Your task to perform on an android device: turn smart compose on in the gmail app Image 0: 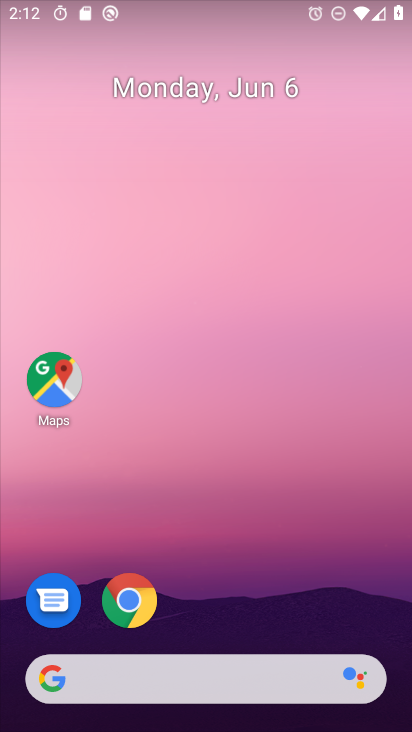
Step 0: drag from (213, 622) to (213, 212)
Your task to perform on an android device: turn smart compose on in the gmail app Image 1: 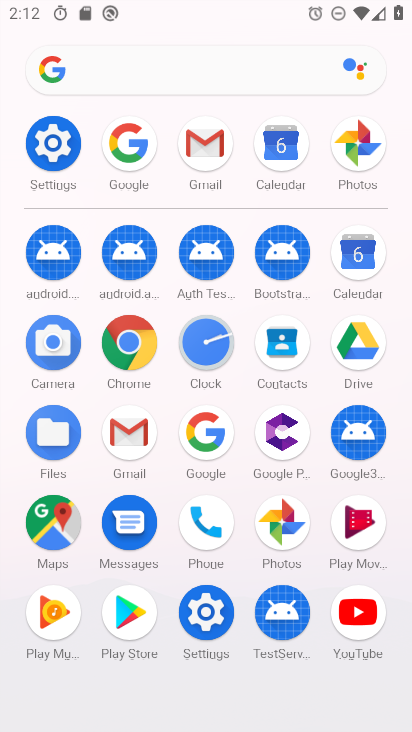
Step 1: click (206, 167)
Your task to perform on an android device: turn smart compose on in the gmail app Image 2: 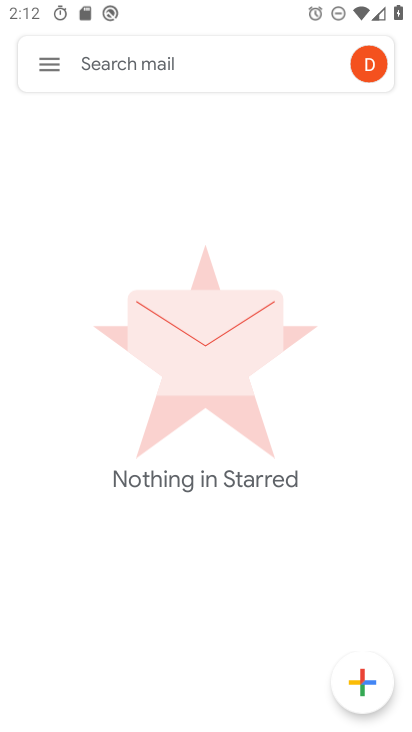
Step 2: click (40, 61)
Your task to perform on an android device: turn smart compose on in the gmail app Image 3: 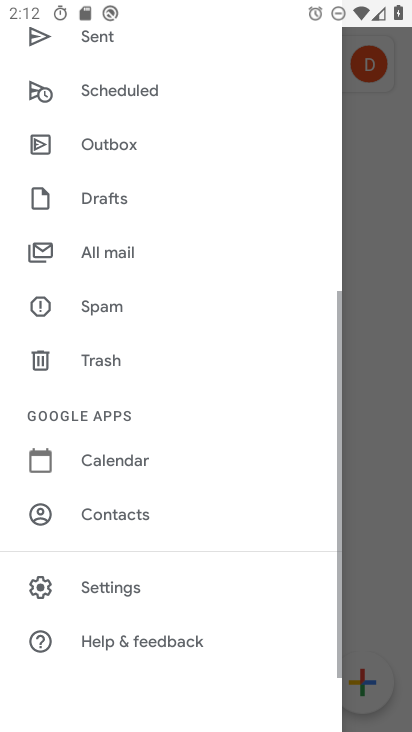
Step 3: click (114, 586)
Your task to perform on an android device: turn smart compose on in the gmail app Image 4: 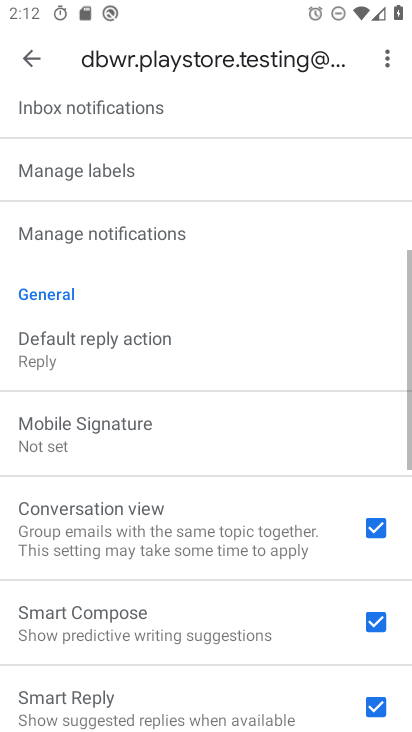
Step 4: task complete